Your task to perform on an android device: Open the web browser Image 0: 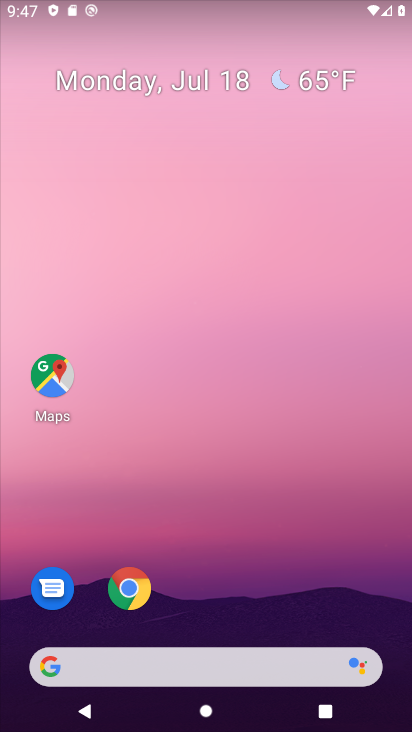
Step 0: press home button
Your task to perform on an android device: Open the web browser Image 1: 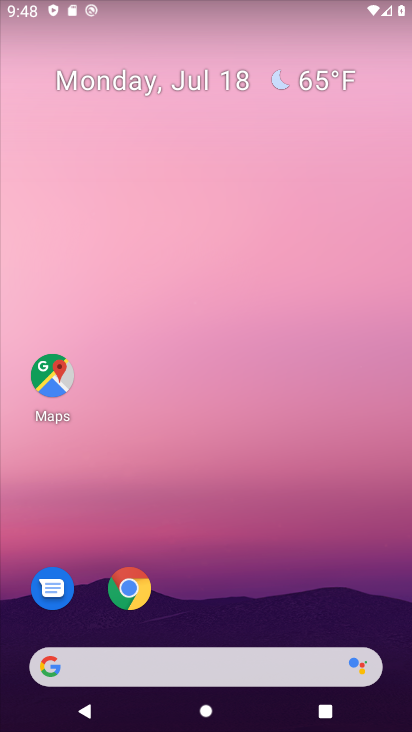
Step 1: click (57, 670)
Your task to perform on an android device: Open the web browser Image 2: 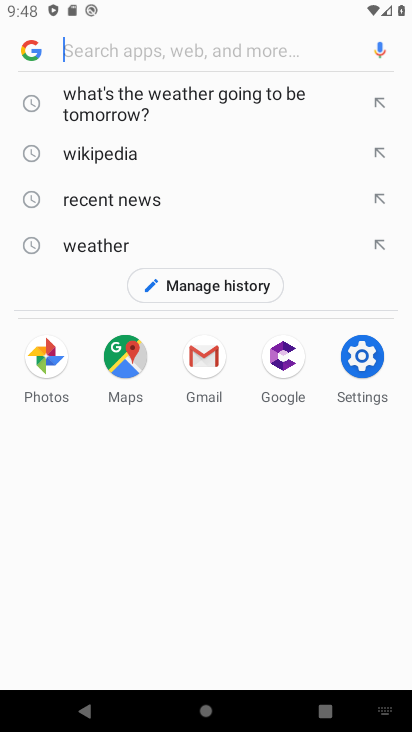
Step 2: task complete